Your task to perform on an android device: check out phone information Image 0: 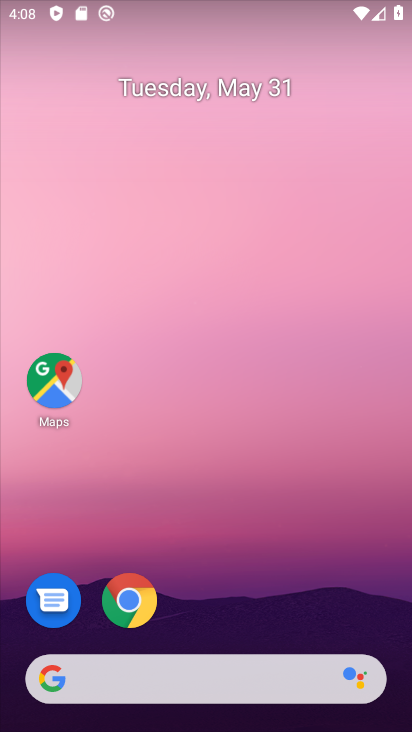
Step 0: drag from (322, 598) to (260, 56)
Your task to perform on an android device: check out phone information Image 1: 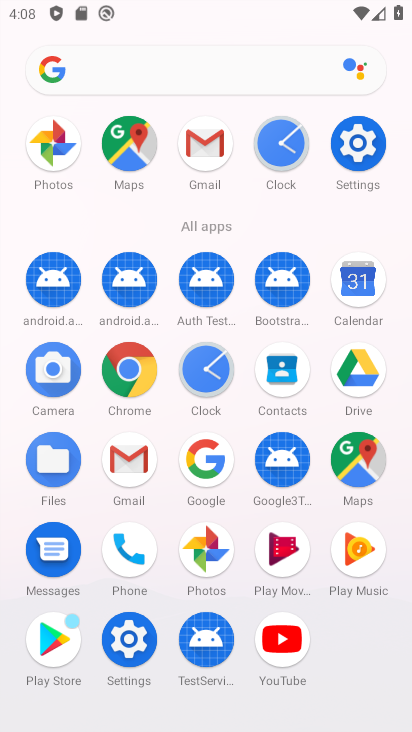
Step 1: click (132, 550)
Your task to perform on an android device: check out phone information Image 2: 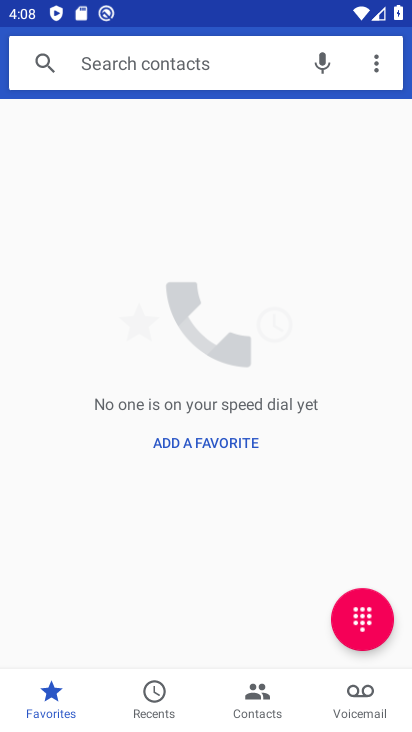
Step 2: press home button
Your task to perform on an android device: check out phone information Image 3: 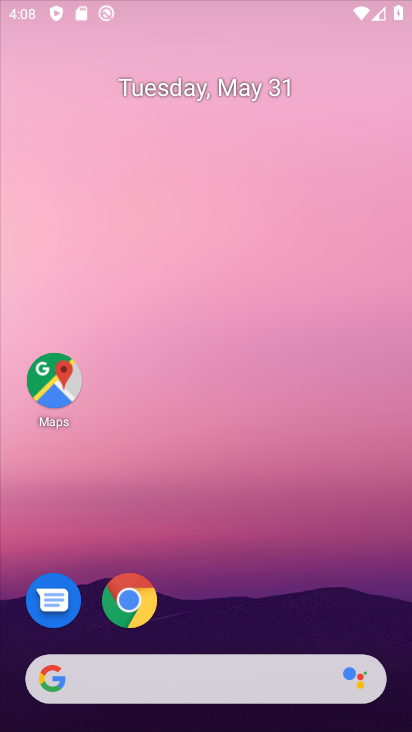
Step 3: drag from (305, 585) to (301, 48)
Your task to perform on an android device: check out phone information Image 4: 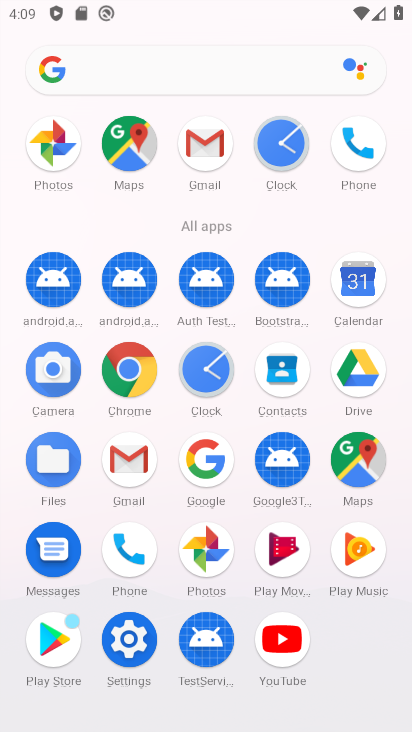
Step 4: click (149, 566)
Your task to perform on an android device: check out phone information Image 5: 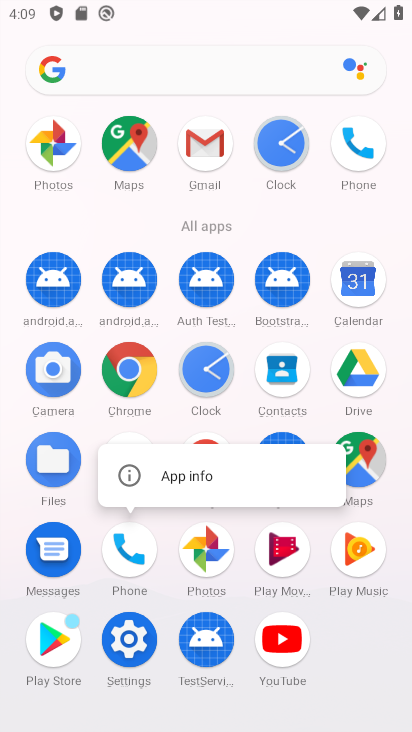
Step 5: click (146, 476)
Your task to perform on an android device: check out phone information Image 6: 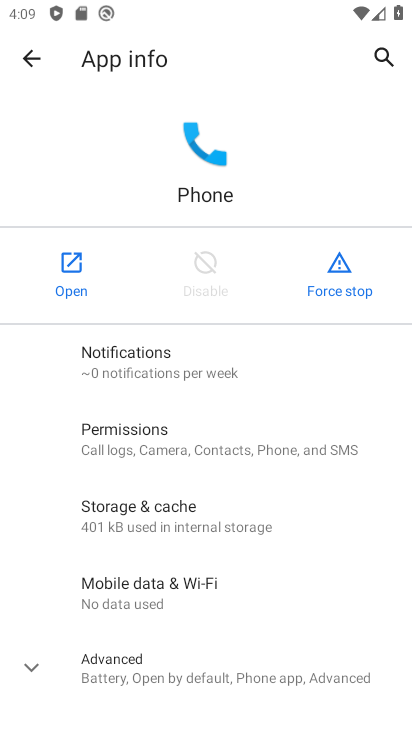
Step 6: task complete